Your task to perform on an android device: change the clock display to show seconds Image 0: 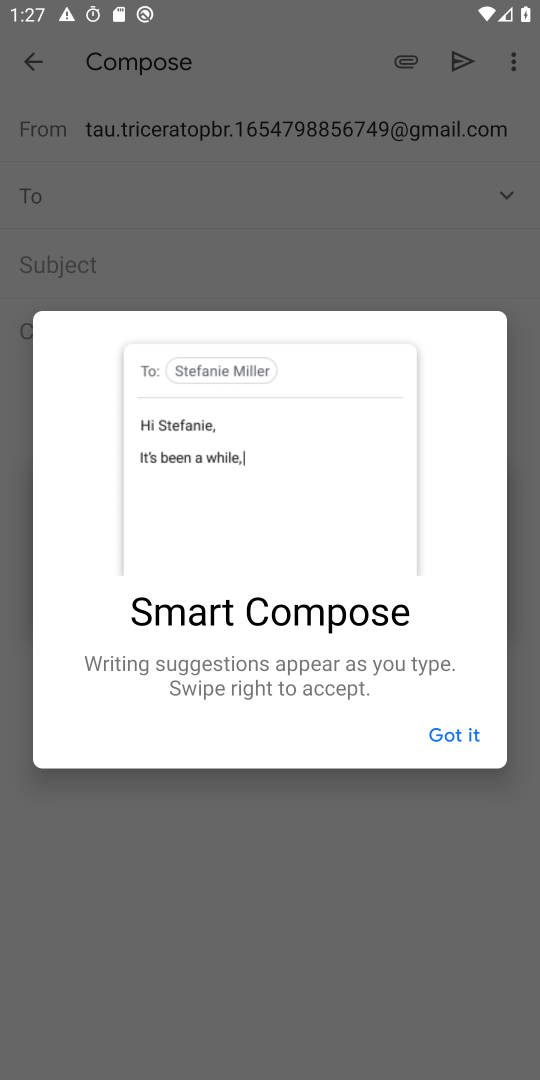
Step 0: press home button
Your task to perform on an android device: change the clock display to show seconds Image 1: 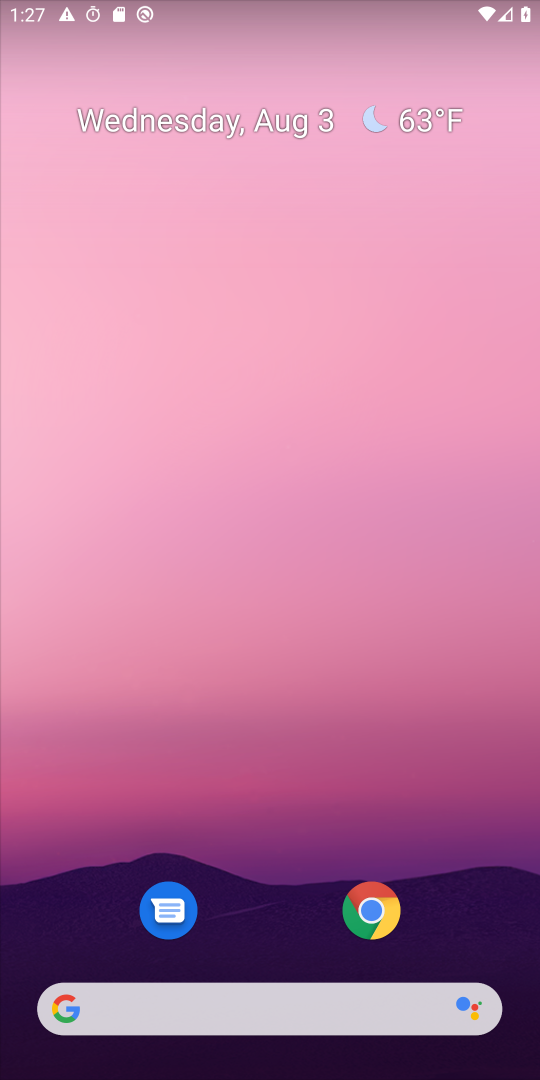
Step 1: drag from (292, 1019) to (373, 45)
Your task to perform on an android device: change the clock display to show seconds Image 2: 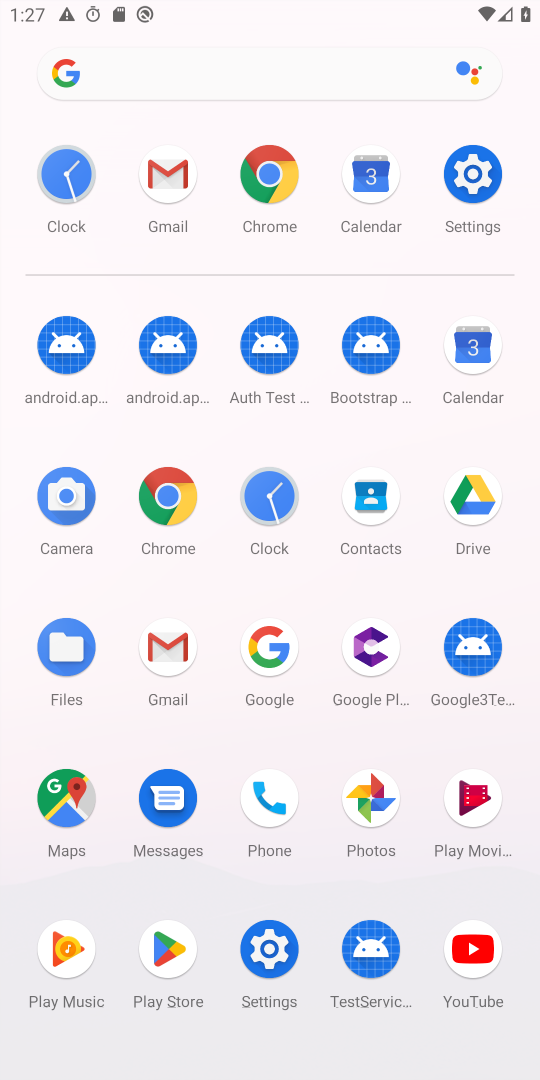
Step 2: click (277, 489)
Your task to perform on an android device: change the clock display to show seconds Image 3: 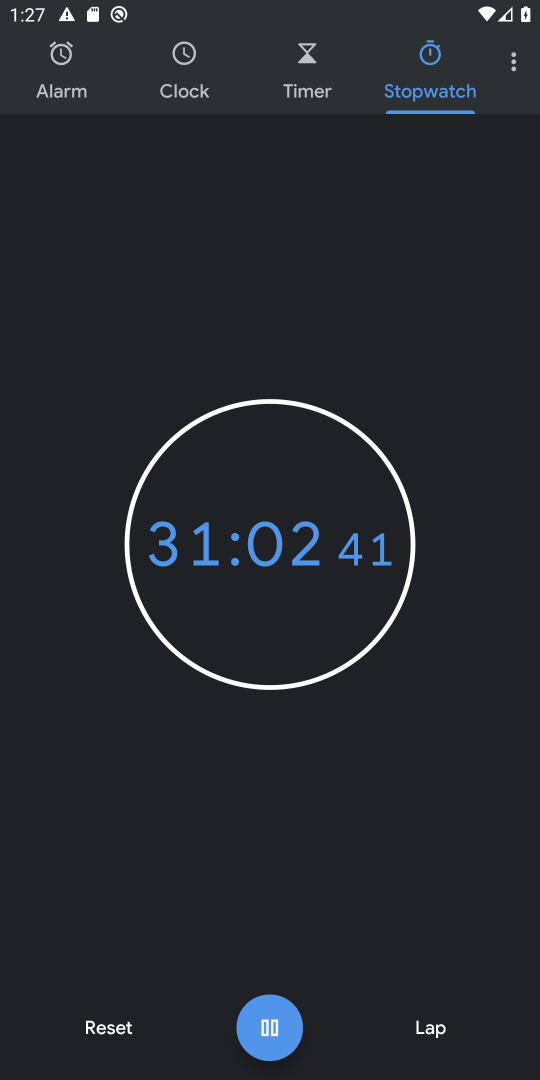
Step 3: click (519, 59)
Your task to perform on an android device: change the clock display to show seconds Image 4: 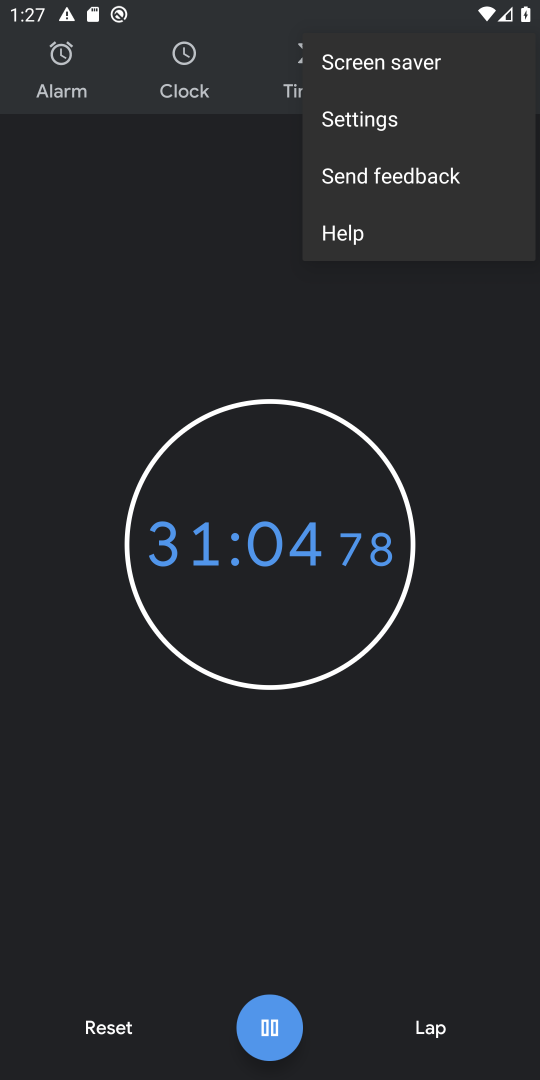
Step 4: click (400, 134)
Your task to perform on an android device: change the clock display to show seconds Image 5: 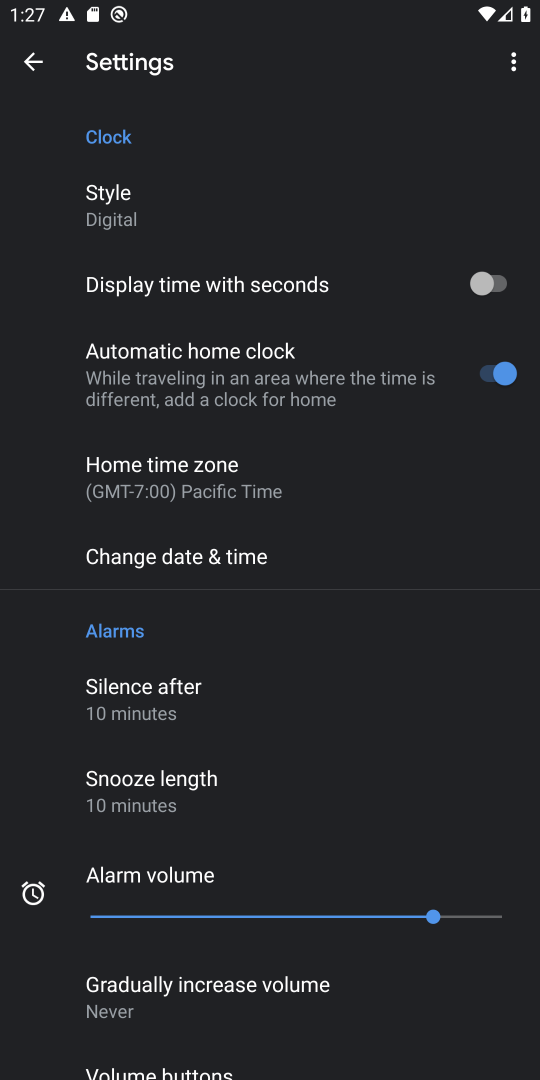
Step 5: click (507, 284)
Your task to perform on an android device: change the clock display to show seconds Image 6: 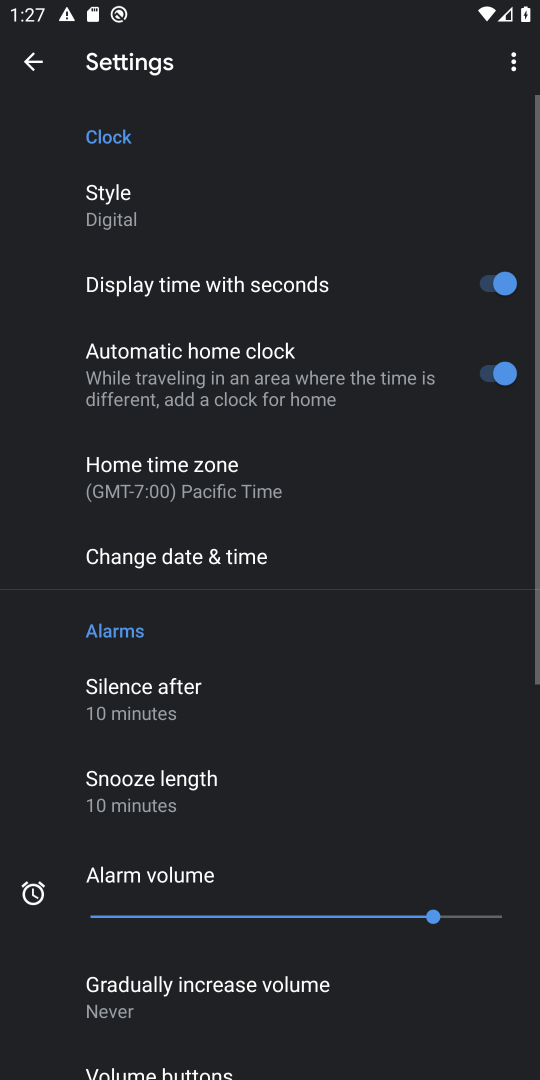
Step 6: task complete